Your task to perform on an android device: delete the emails in spam in the gmail app Image 0: 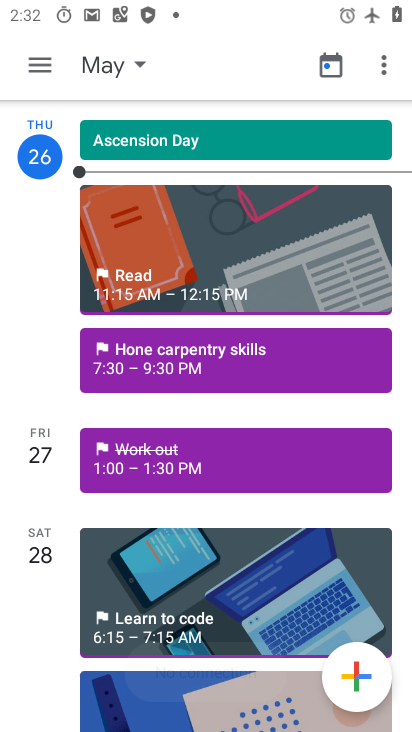
Step 0: press home button
Your task to perform on an android device: delete the emails in spam in the gmail app Image 1: 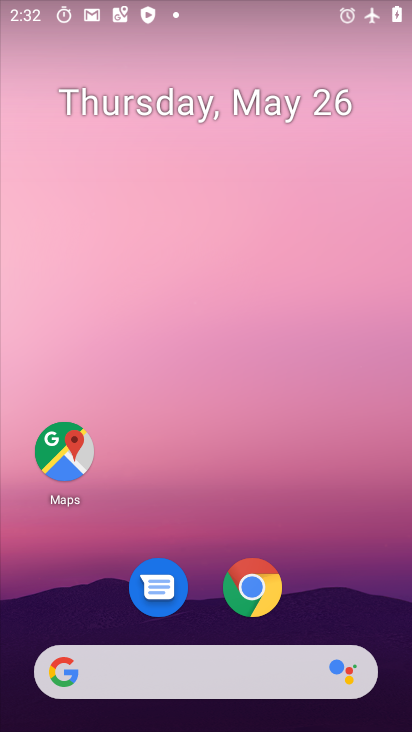
Step 1: drag from (275, 676) to (277, 216)
Your task to perform on an android device: delete the emails in spam in the gmail app Image 2: 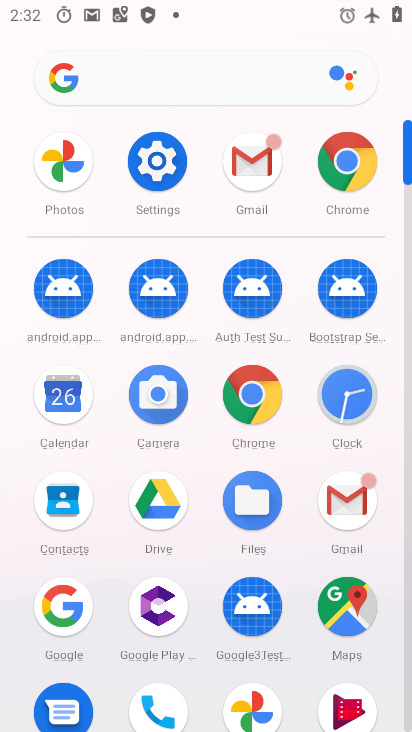
Step 2: click (338, 496)
Your task to perform on an android device: delete the emails in spam in the gmail app Image 3: 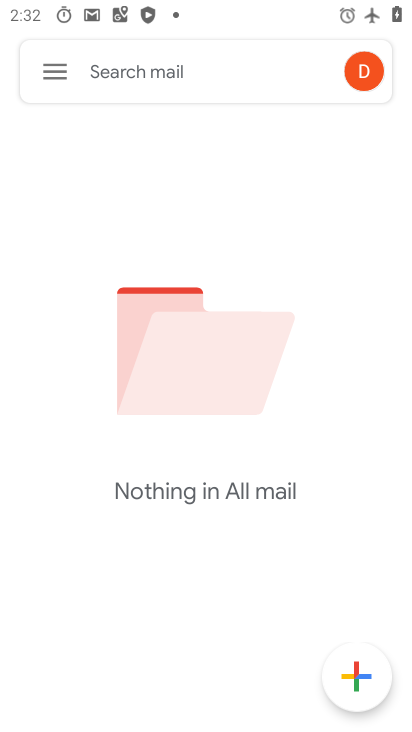
Step 3: click (38, 76)
Your task to perform on an android device: delete the emails in spam in the gmail app Image 4: 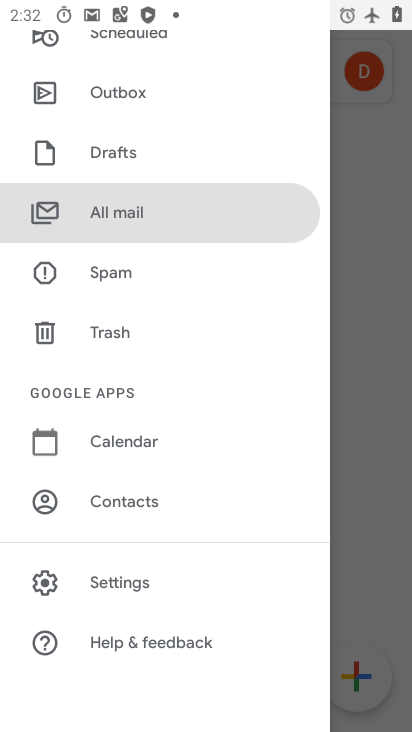
Step 4: click (122, 291)
Your task to perform on an android device: delete the emails in spam in the gmail app Image 5: 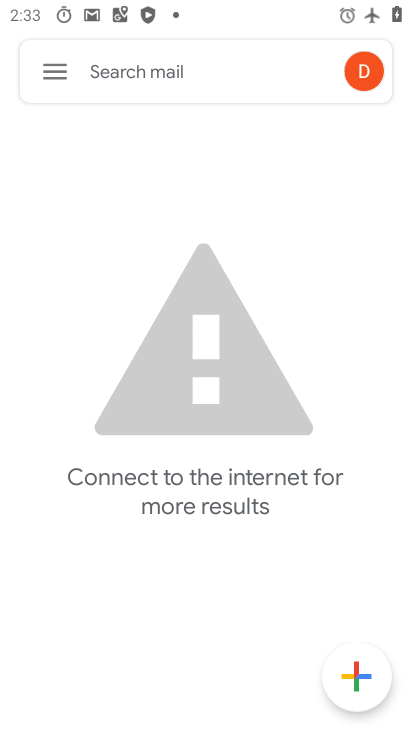
Step 5: task complete